Your task to perform on an android device: Search for Italian restaurants on Maps Image 0: 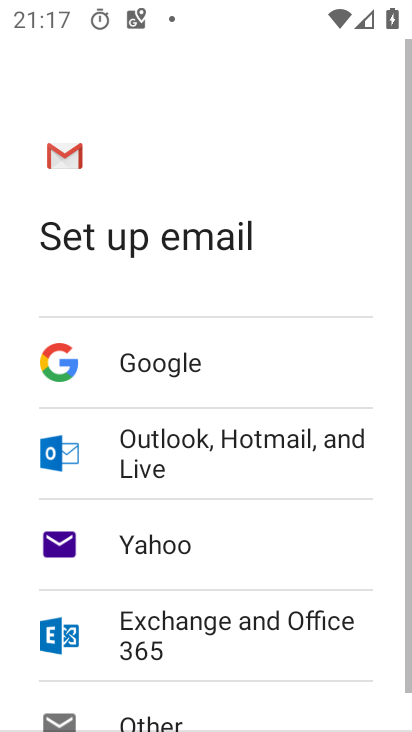
Step 0: press home button
Your task to perform on an android device: Search for Italian restaurants on Maps Image 1: 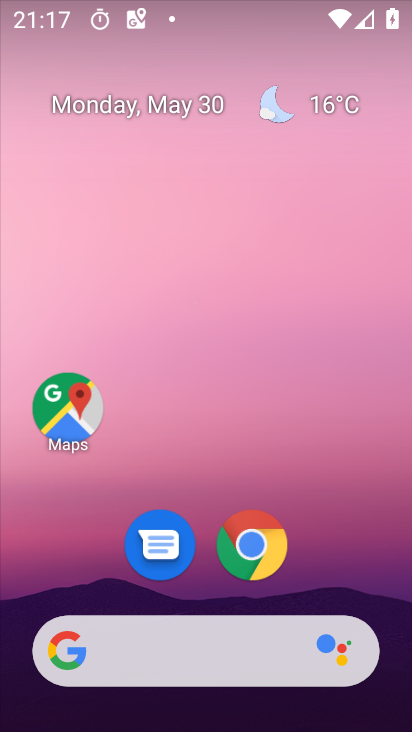
Step 1: click (79, 403)
Your task to perform on an android device: Search for Italian restaurants on Maps Image 2: 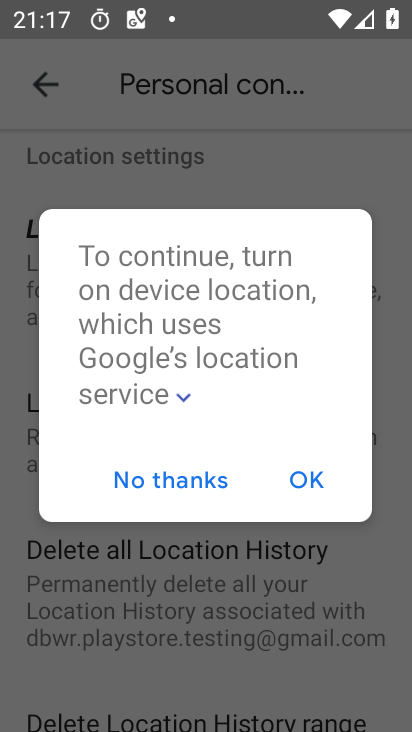
Step 2: click (298, 479)
Your task to perform on an android device: Search for Italian restaurants on Maps Image 3: 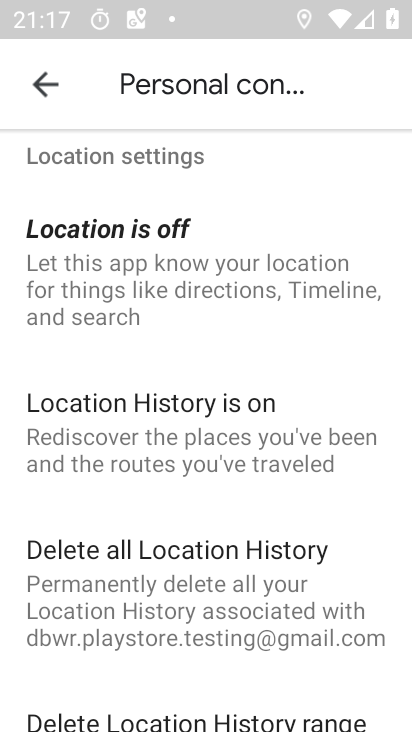
Step 3: click (45, 85)
Your task to perform on an android device: Search for Italian restaurants on Maps Image 4: 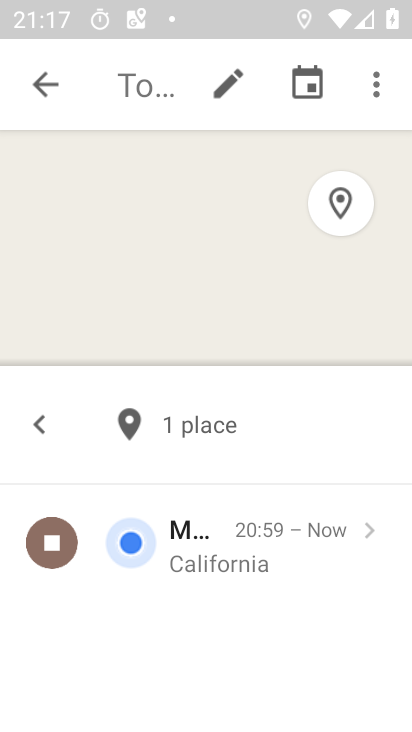
Step 4: click (45, 85)
Your task to perform on an android device: Search for Italian restaurants on Maps Image 5: 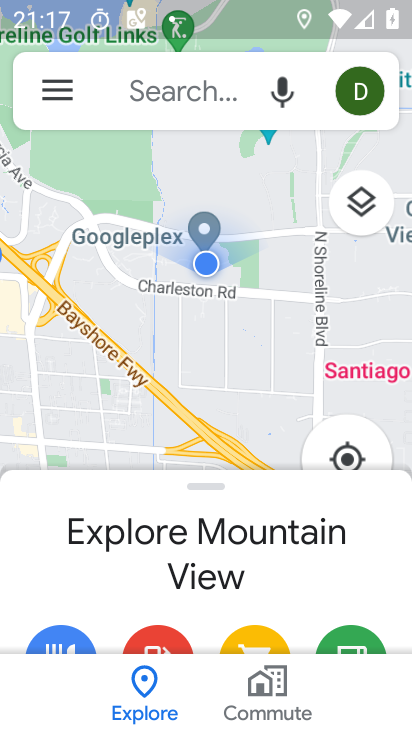
Step 5: click (172, 83)
Your task to perform on an android device: Search for Italian restaurants on Maps Image 6: 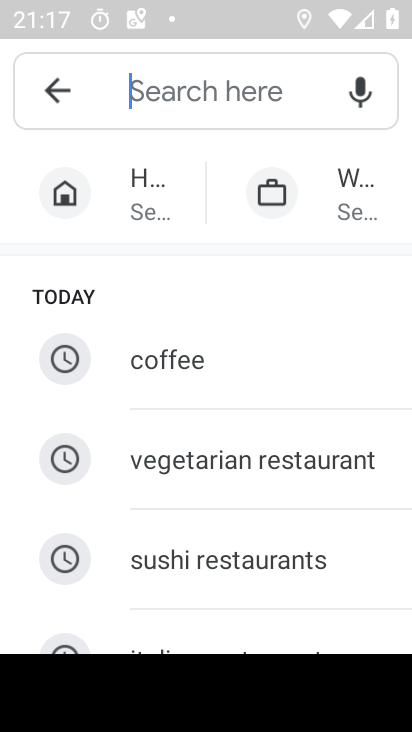
Step 6: type "Italian restaurants"
Your task to perform on an android device: Search for Italian restaurants on Maps Image 7: 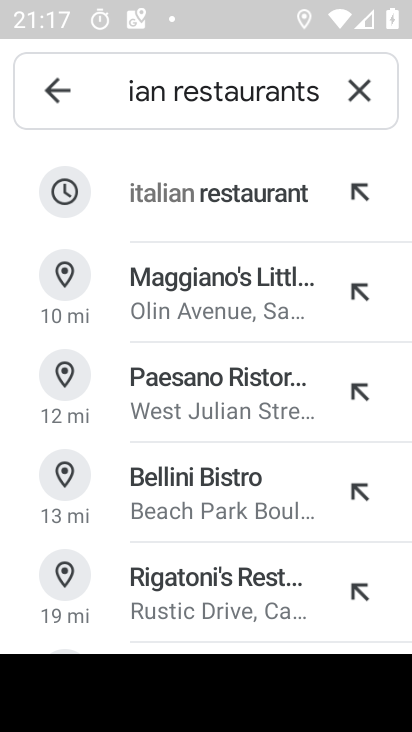
Step 7: click (275, 195)
Your task to perform on an android device: Search for Italian restaurants on Maps Image 8: 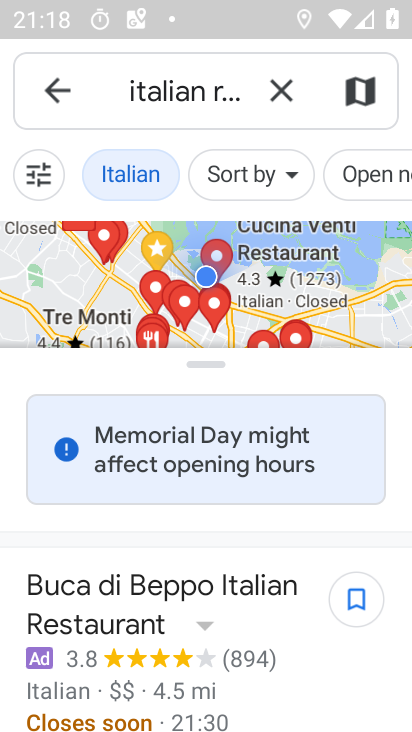
Step 8: task complete